Your task to perform on an android device: turn on the 24-hour format for clock Image 0: 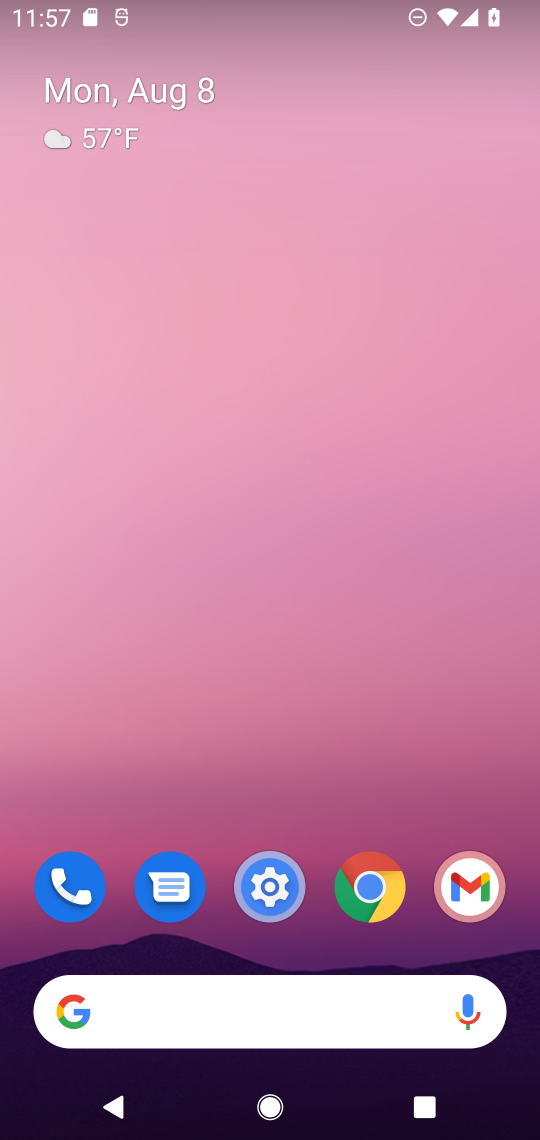
Step 0: drag from (288, 780) to (204, 145)
Your task to perform on an android device: turn on the 24-hour format for clock Image 1: 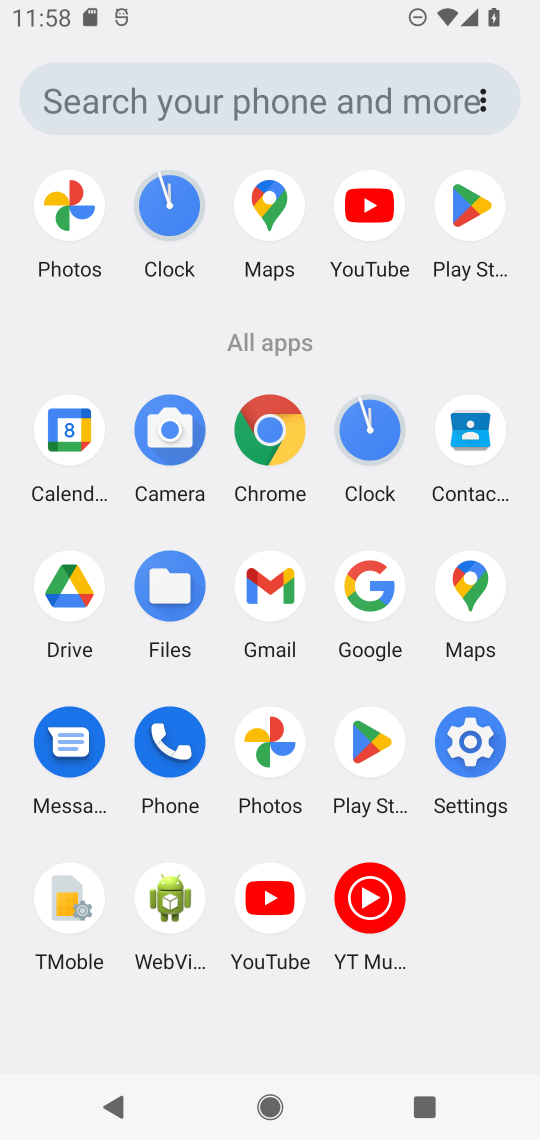
Step 1: click (170, 208)
Your task to perform on an android device: turn on the 24-hour format for clock Image 2: 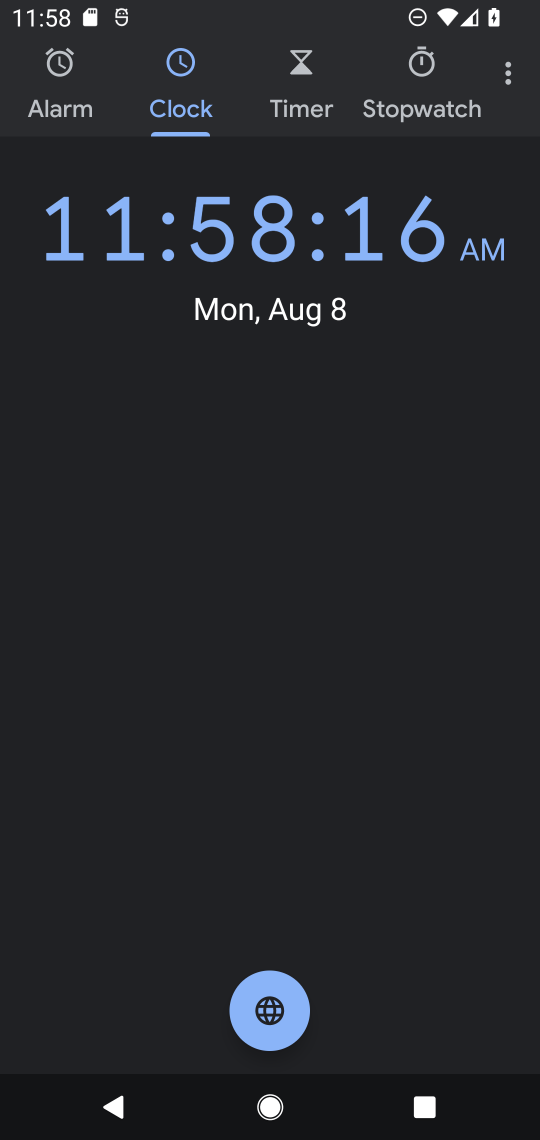
Step 2: click (512, 78)
Your task to perform on an android device: turn on the 24-hour format for clock Image 3: 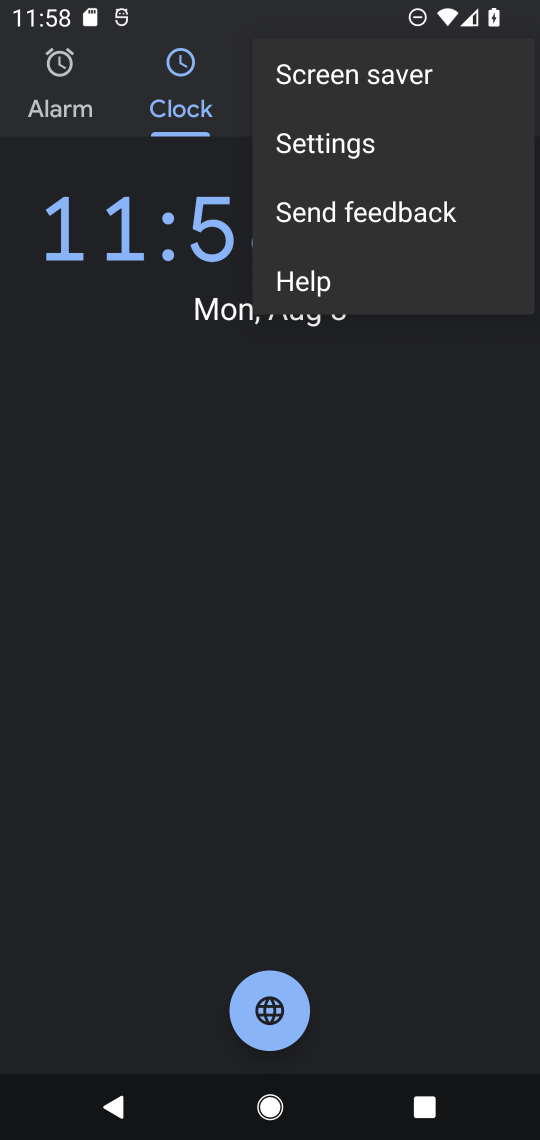
Step 3: click (352, 142)
Your task to perform on an android device: turn on the 24-hour format for clock Image 4: 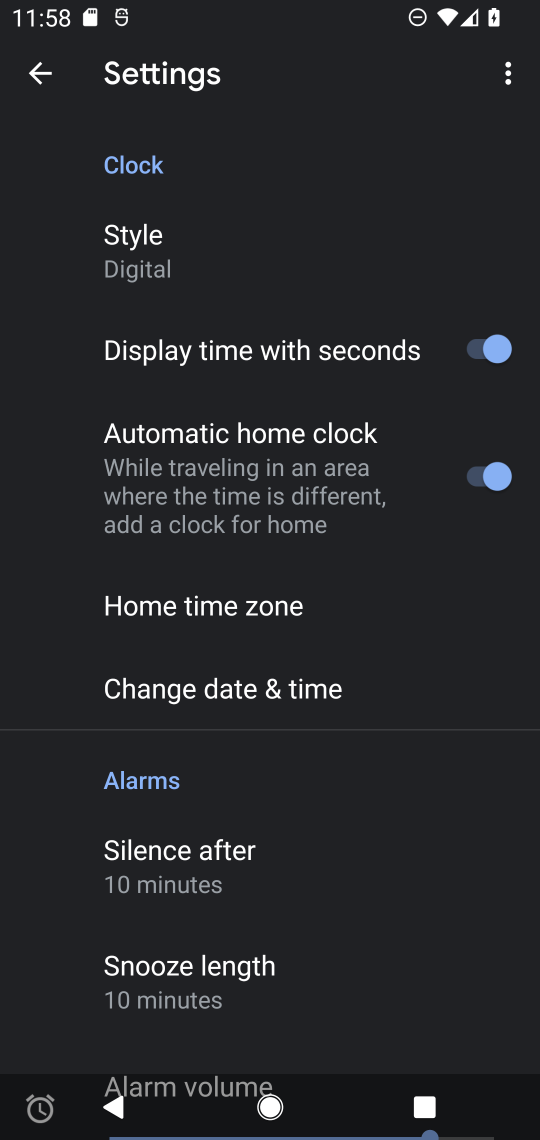
Step 4: click (249, 688)
Your task to perform on an android device: turn on the 24-hour format for clock Image 5: 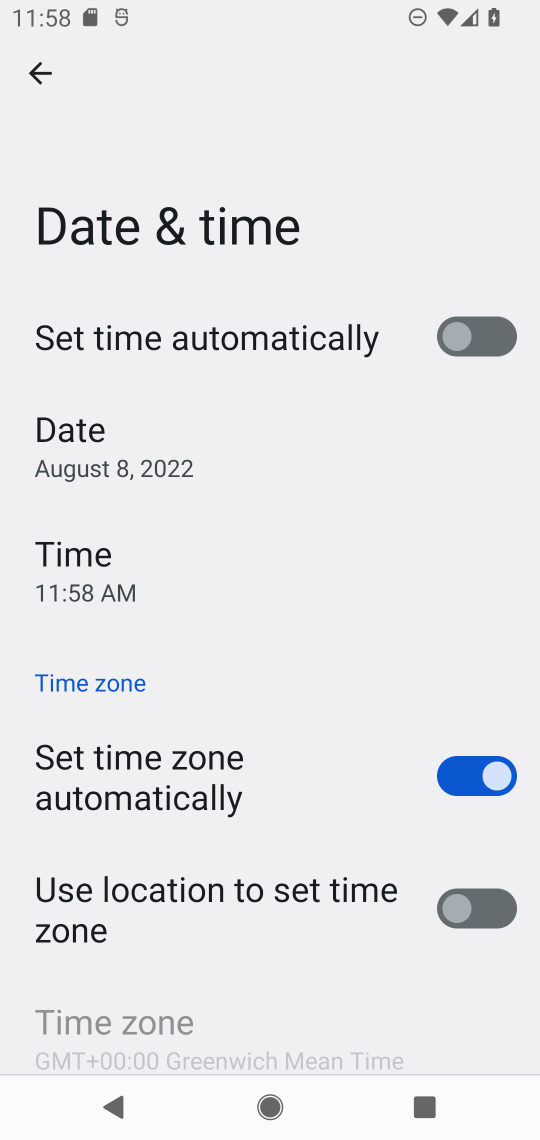
Step 5: drag from (311, 824) to (280, 495)
Your task to perform on an android device: turn on the 24-hour format for clock Image 6: 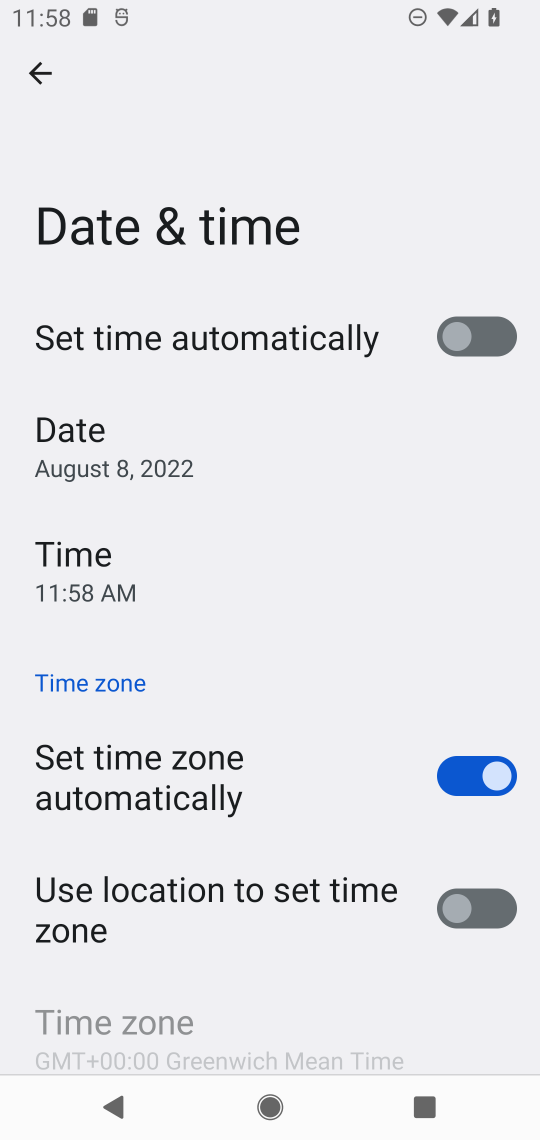
Step 6: drag from (309, 925) to (302, 491)
Your task to perform on an android device: turn on the 24-hour format for clock Image 7: 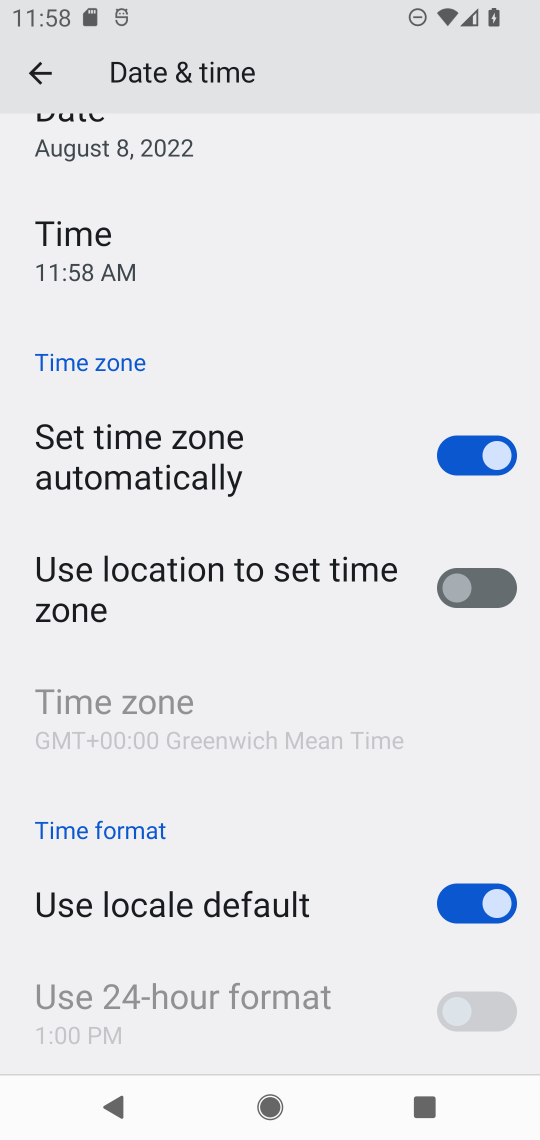
Step 7: click (459, 908)
Your task to perform on an android device: turn on the 24-hour format for clock Image 8: 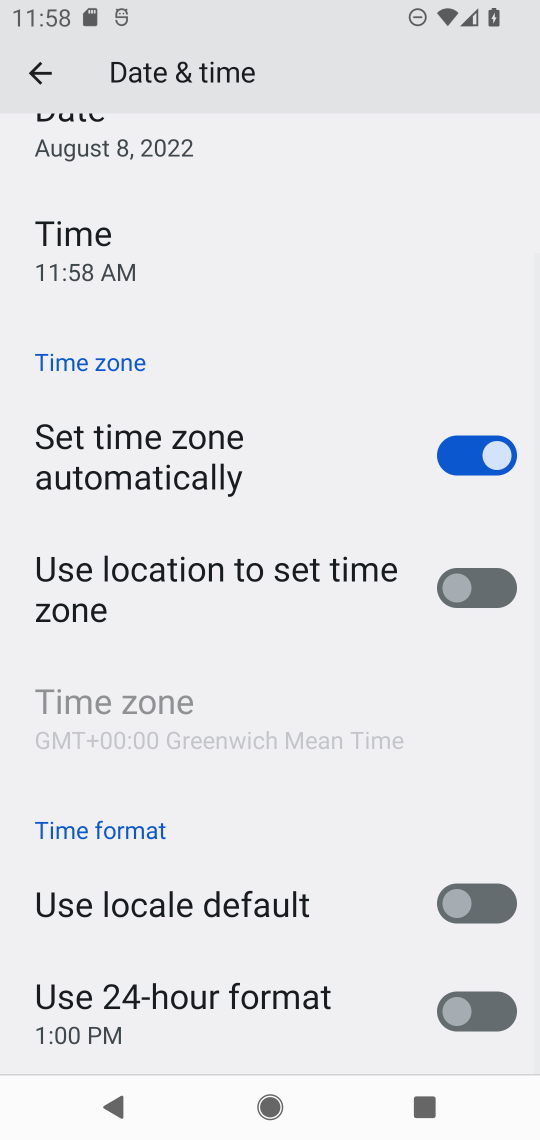
Step 8: click (459, 1006)
Your task to perform on an android device: turn on the 24-hour format for clock Image 9: 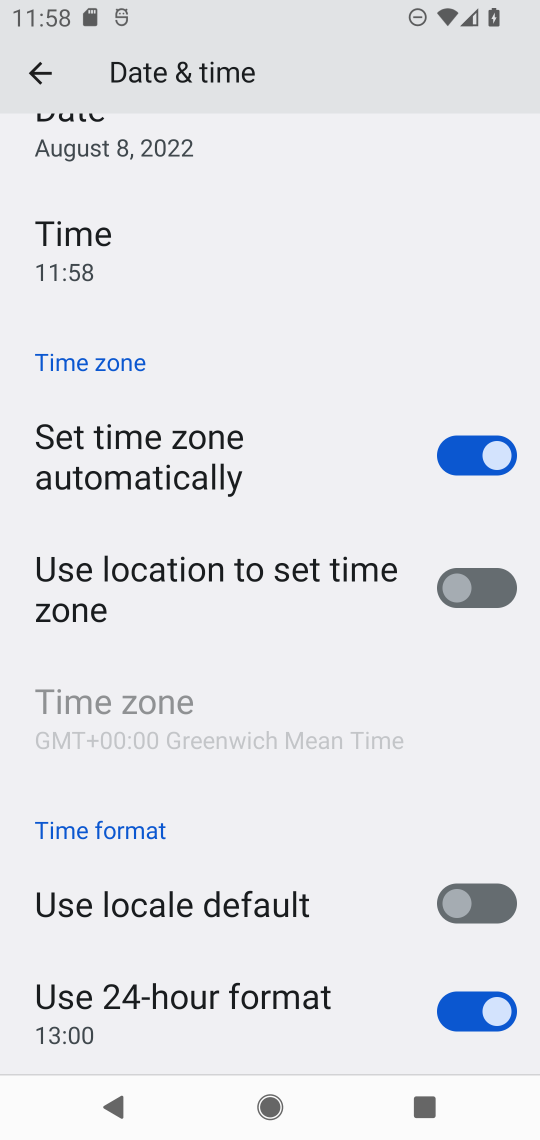
Step 9: task complete